Your task to perform on an android device: Empty the shopping cart on target.com. Search for "logitech g933" on target.com, select the first entry, and add it to the cart. Image 0: 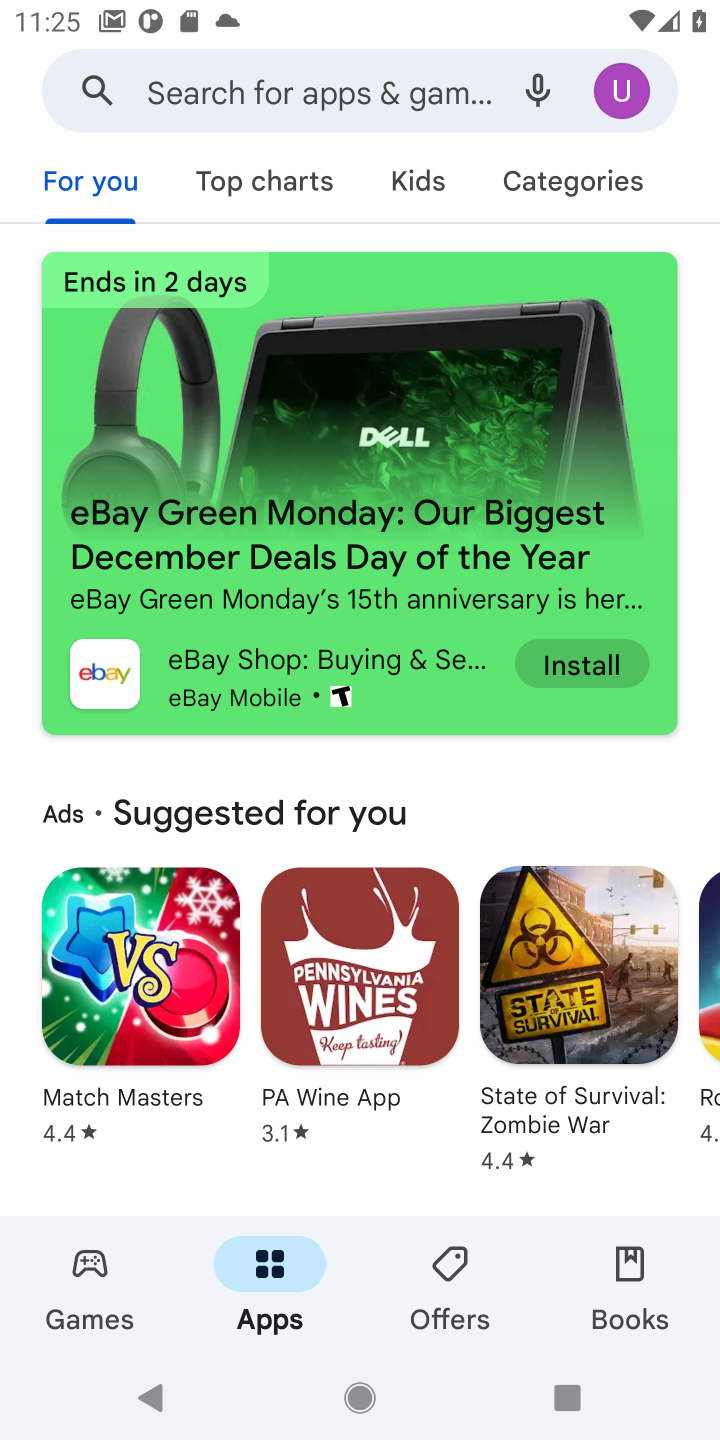
Step 0: press home button
Your task to perform on an android device: Empty the shopping cart on target.com. Search for "logitech g933" on target.com, select the first entry, and add it to the cart. Image 1: 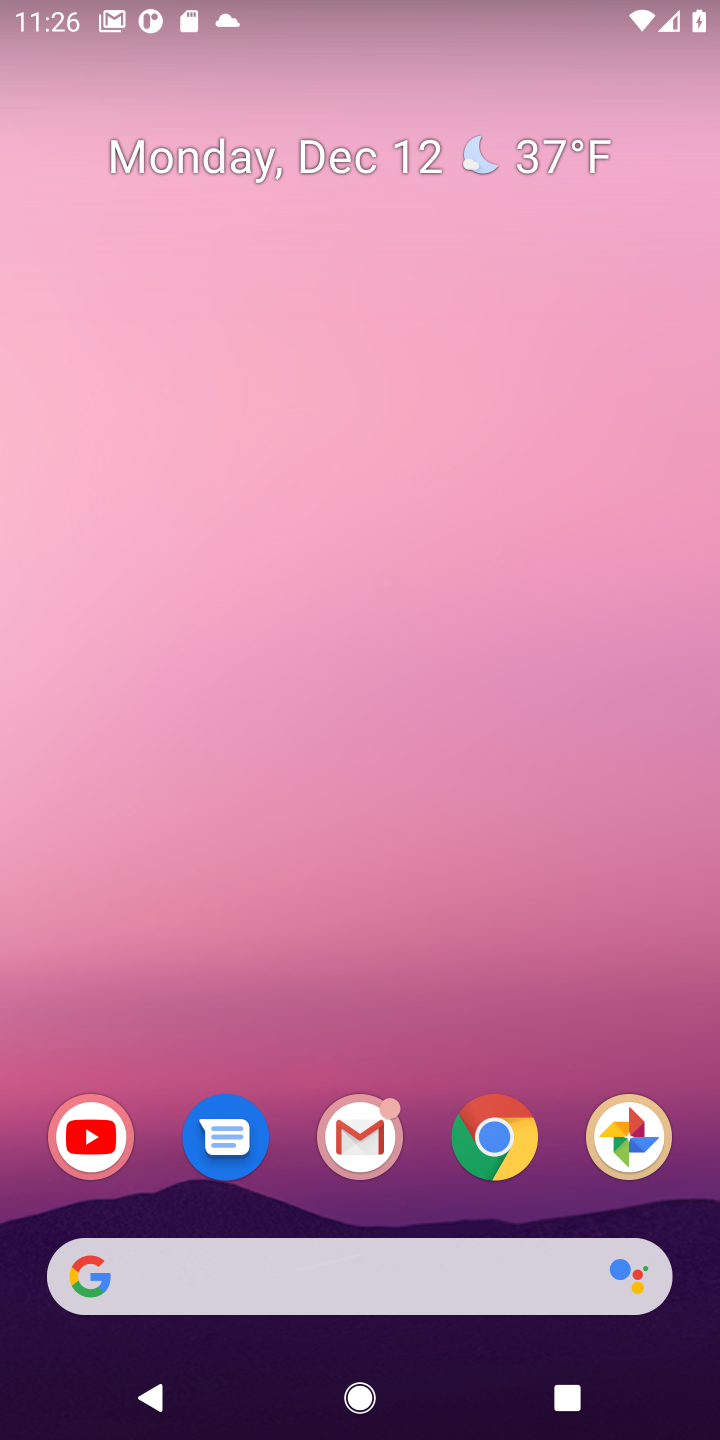
Step 1: click (532, 1124)
Your task to perform on an android device: Empty the shopping cart on target.com. Search for "logitech g933" on target.com, select the first entry, and add it to the cart. Image 2: 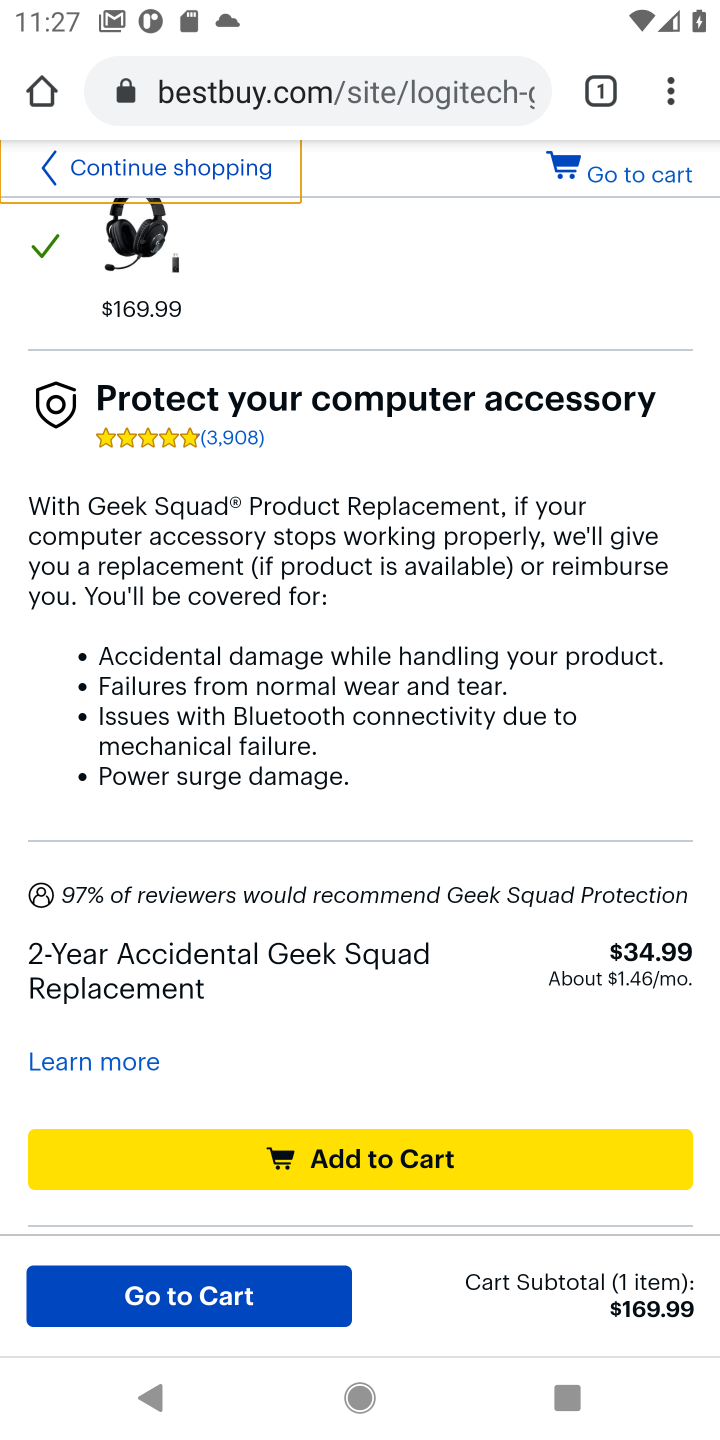
Step 2: press home button
Your task to perform on an android device: Empty the shopping cart on target.com. Search for "logitech g933" on target.com, select the first entry, and add it to the cart. Image 3: 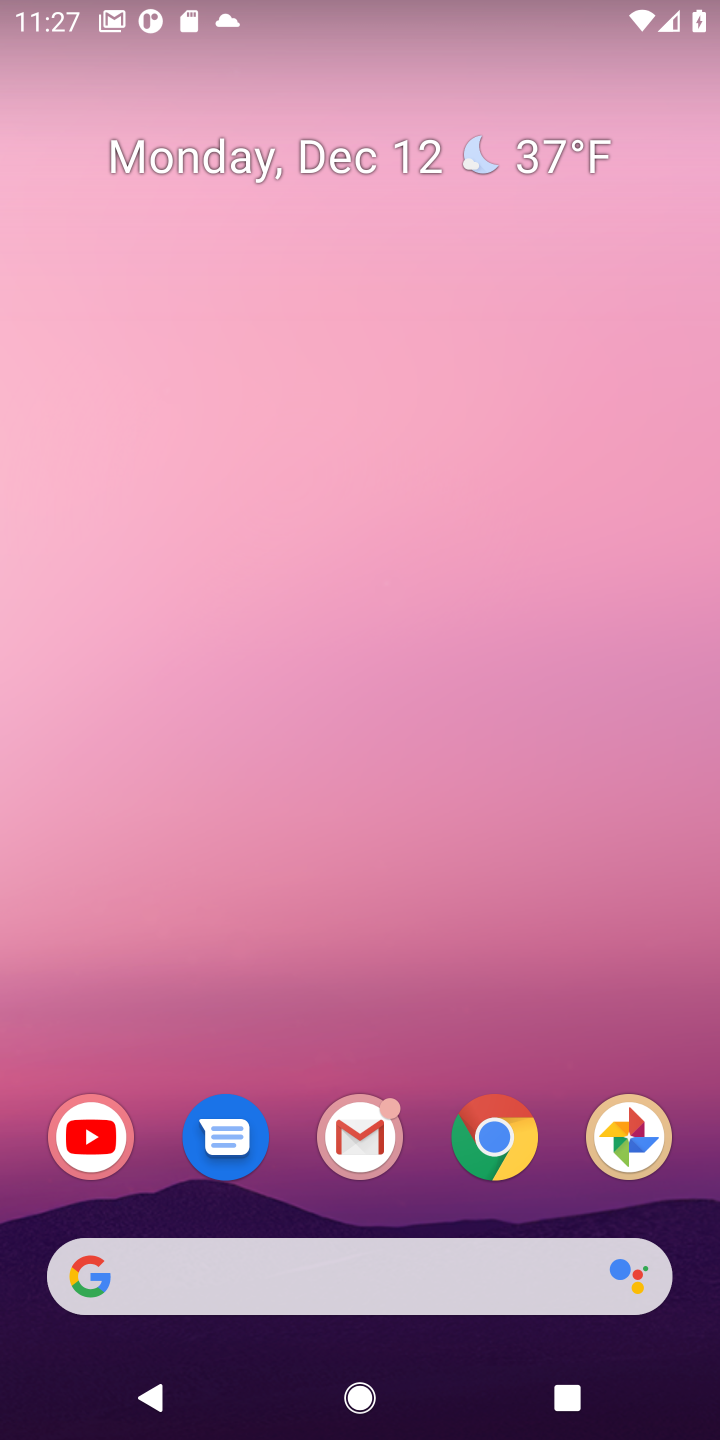
Step 3: press home button
Your task to perform on an android device: Empty the shopping cart on target.com. Search for "logitech g933" on target.com, select the first entry, and add it to the cart. Image 4: 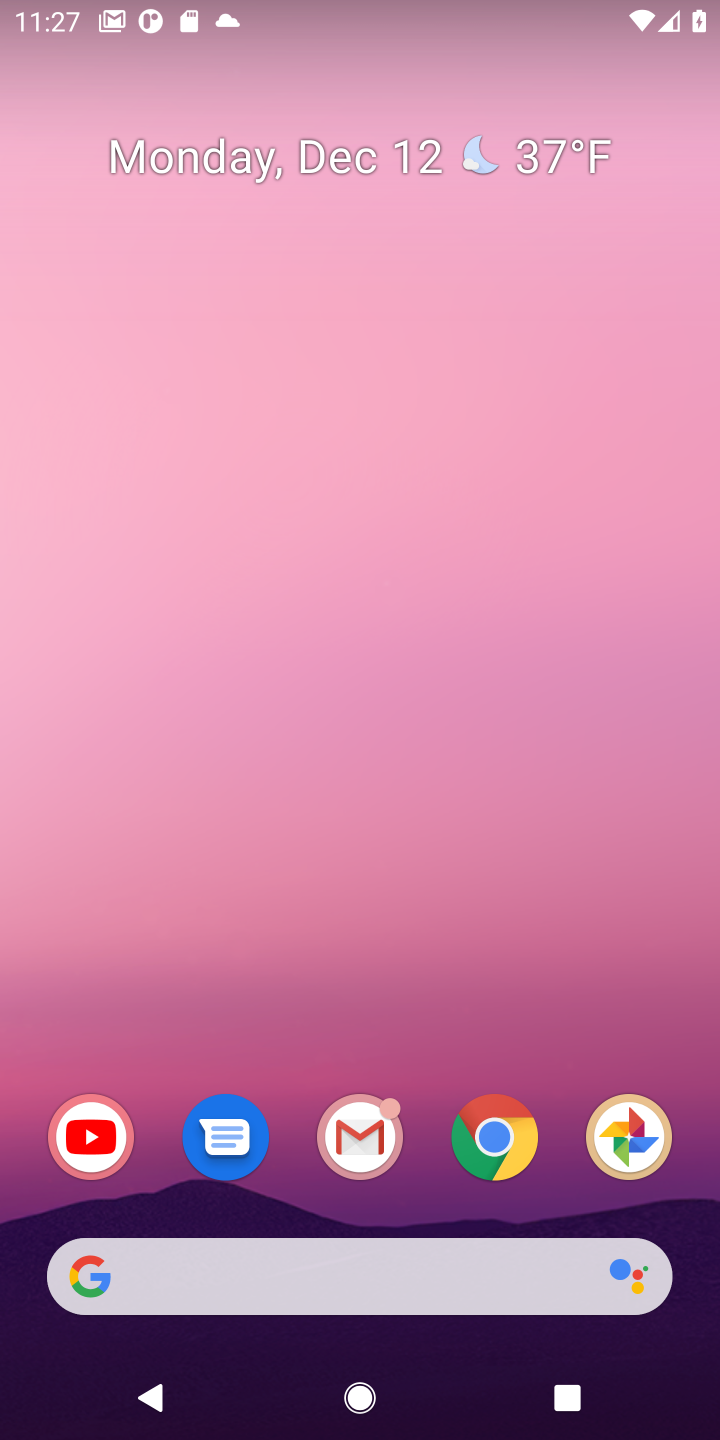
Step 4: click (317, 1274)
Your task to perform on an android device: Empty the shopping cart on target.com. Search for "logitech g933" on target.com, select the first entry, and add it to the cart. Image 5: 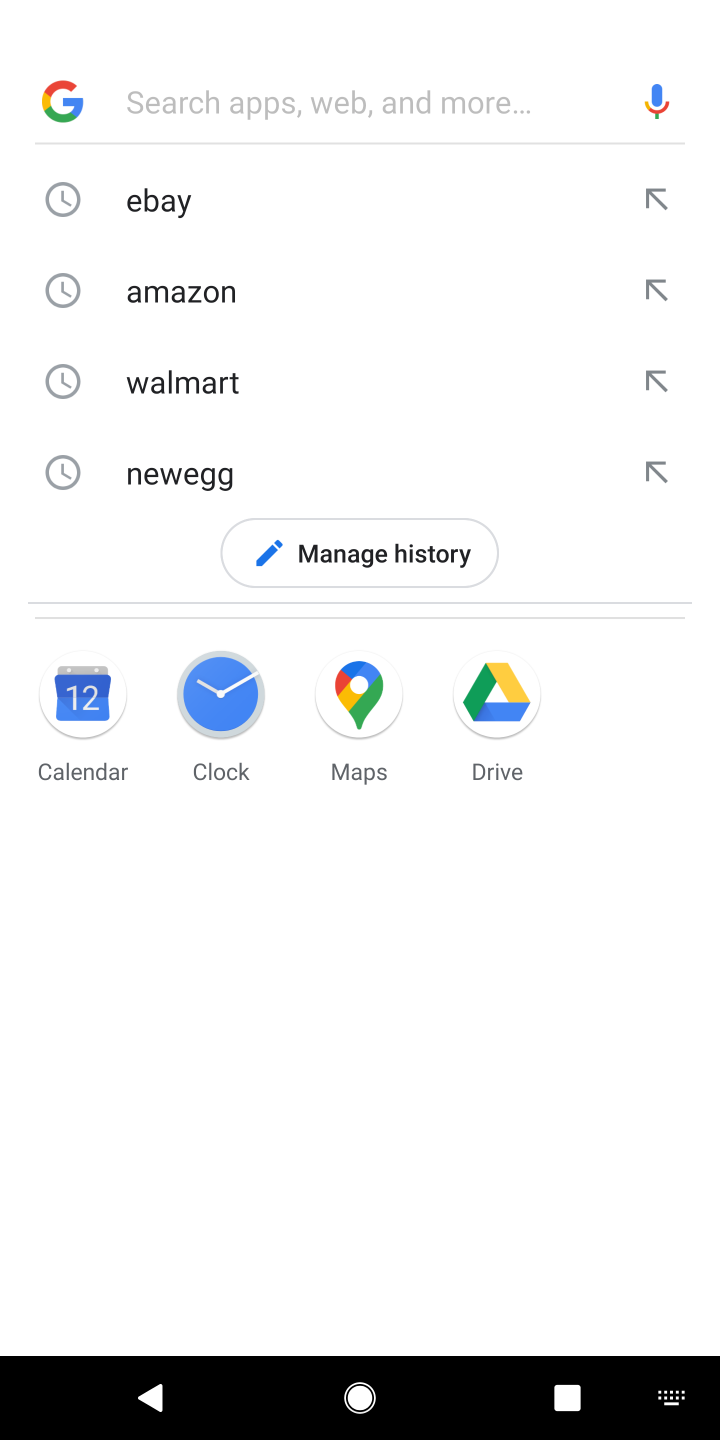
Step 5: type "target"
Your task to perform on an android device: Empty the shopping cart on target.com. Search for "logitech g933" on target.com, select the first entry, and add it to the cart. Image 6: 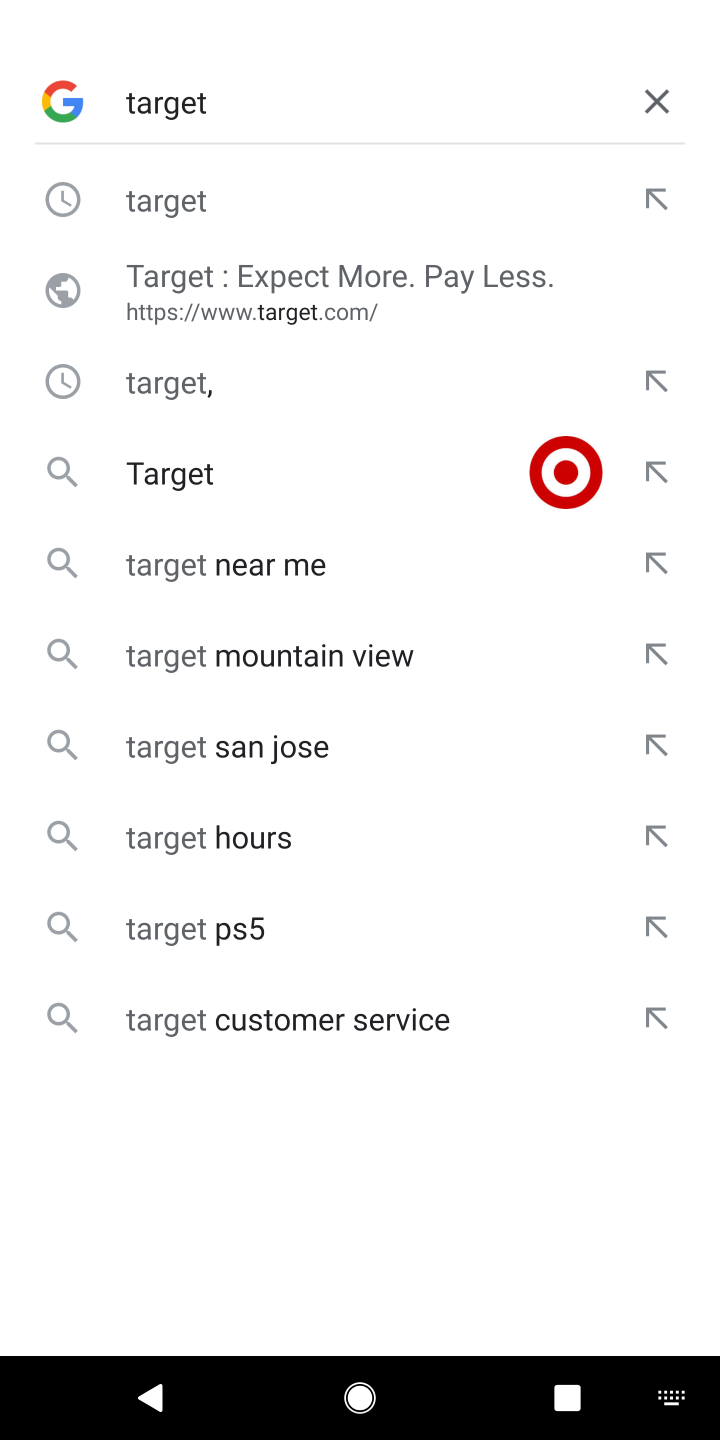
Step 6: click (241, 488)
Your task to perform on an android device: Empty the shopping cart on target.com. Search for "logitech g933" on target.com, select the first entry, and add it to the cart. Image 7: 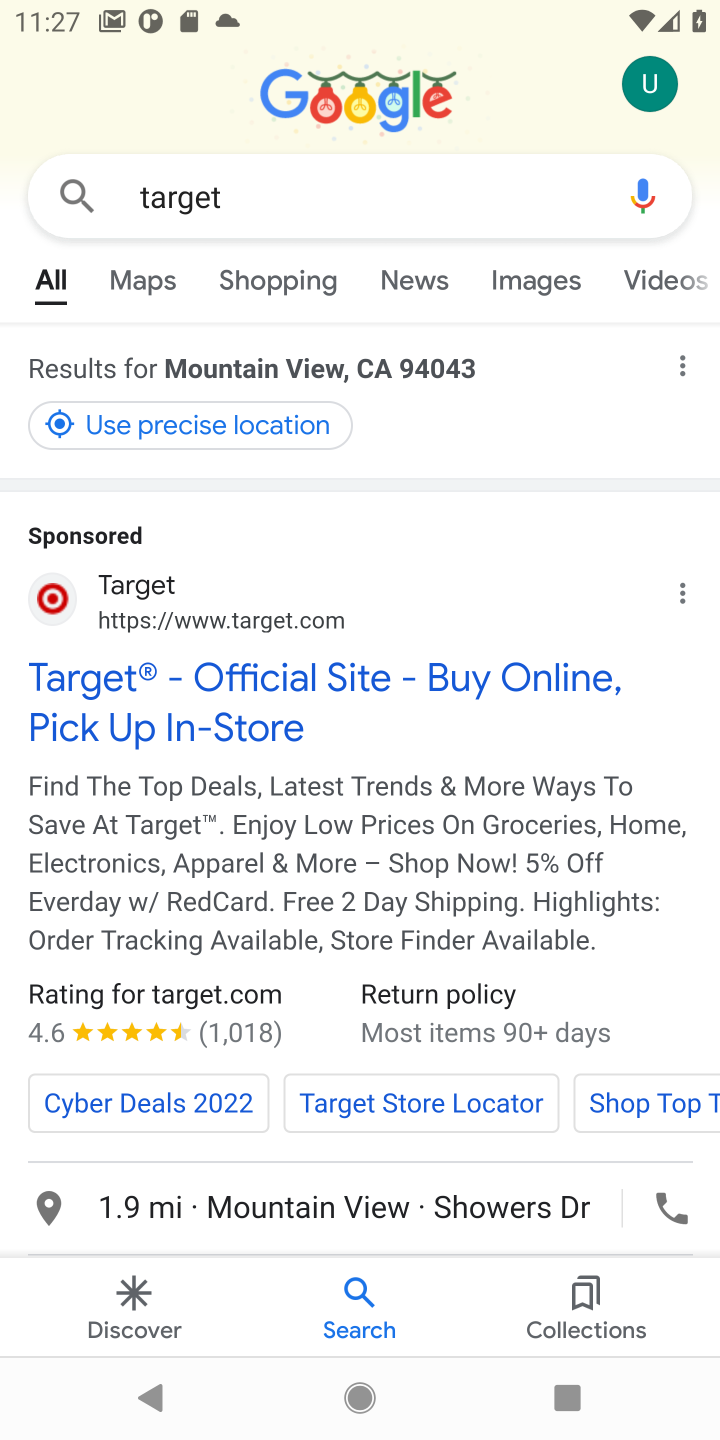
Step 7: click (233, 635)
Your task to perform on an android device: Empty the shopping cart on target.com. Search for "logitech g933" on target.com, select the first entry, and add it to the cart. Image 8: 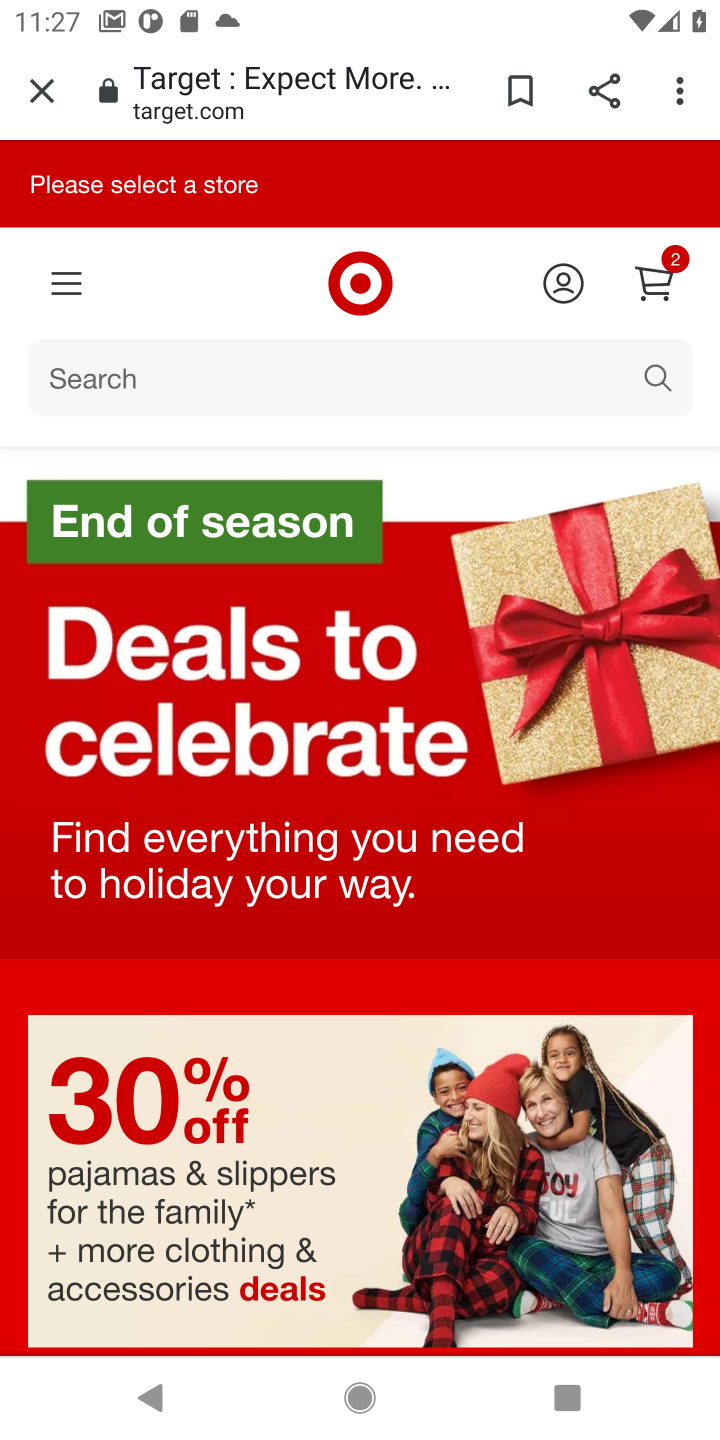
Step 8: task complete